Your task to perform on an android device: refresh tabs in the chrome app Image 0: 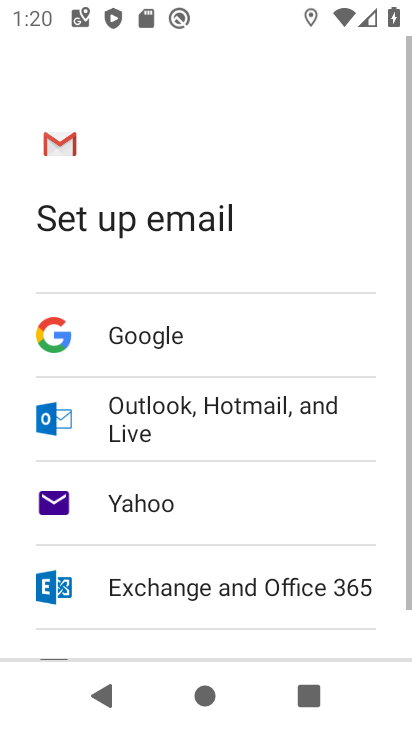
Step 0: press back button
Your task to perform on an android device: refresh tabs in the chrome app Image 1: 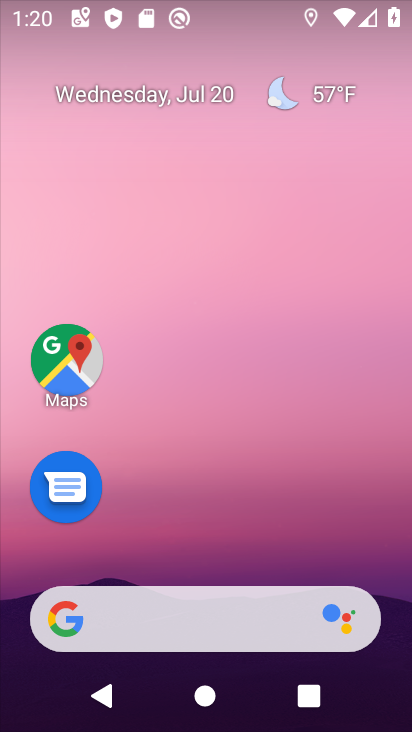
Step 1: drag from (185, 495) to (246, 17)
Your task to perform on an android device: refresh tabs in the chrome app Image 2: 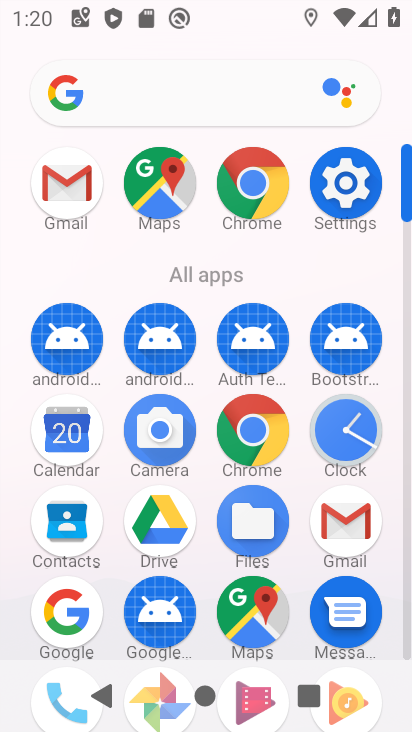
Step 2: click (252, 197)
Your task to perform on an android device: refresh tabs in the chrome app Image 3: 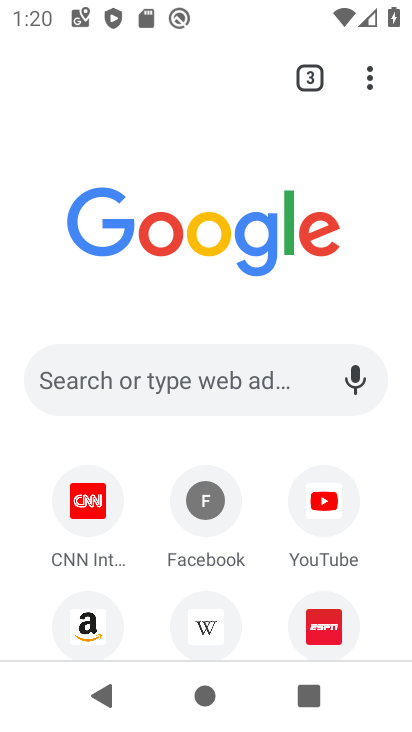
Step 3: click (365, 80)
Your task to perform on an android device: refresh tabs in the chrome app Image 4: 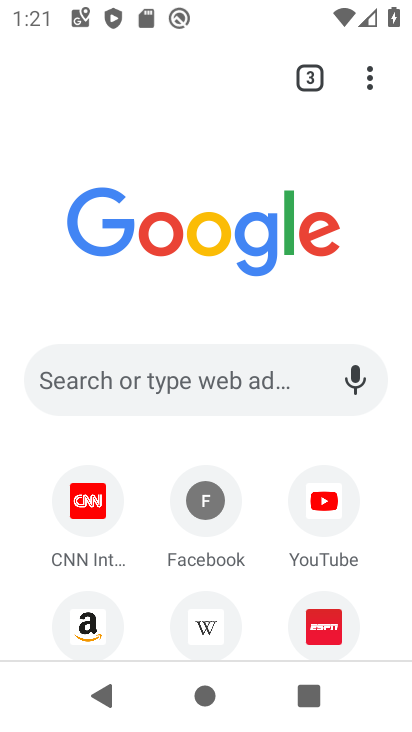
Step 4: task complete